Your task to perform on an android device: turn notification dots on Image 0: 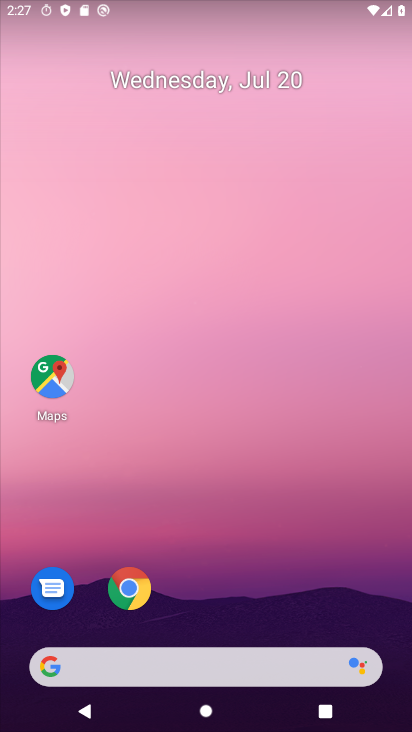
Step 0: drag from (202, 209) to (222, 128)
Your task to perform on an android device: turn notification dots on Image 1: 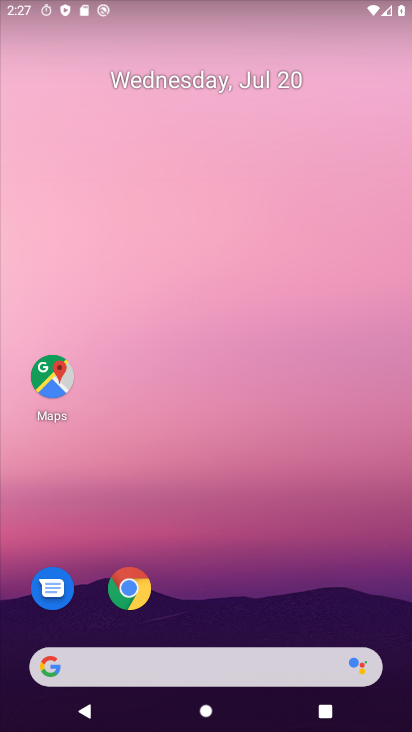
Step 1: drag from (211, 603) to (289, 30)
Your task to perform on an android device: turn notification dots on Image 2: 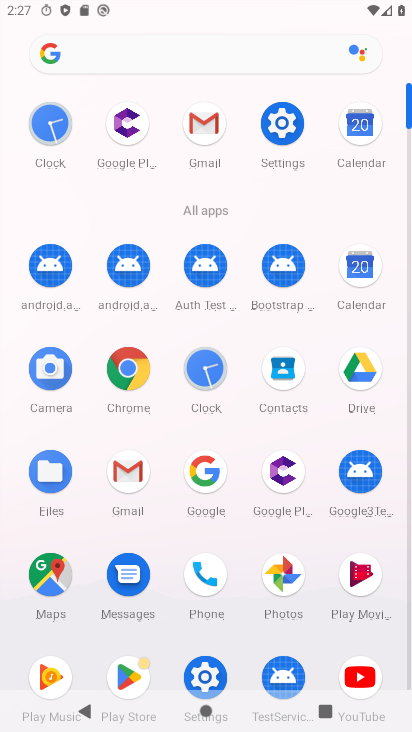
Step 2: click (258, 108)
Your task to perform on an android device: turn notification dots on Image 3: 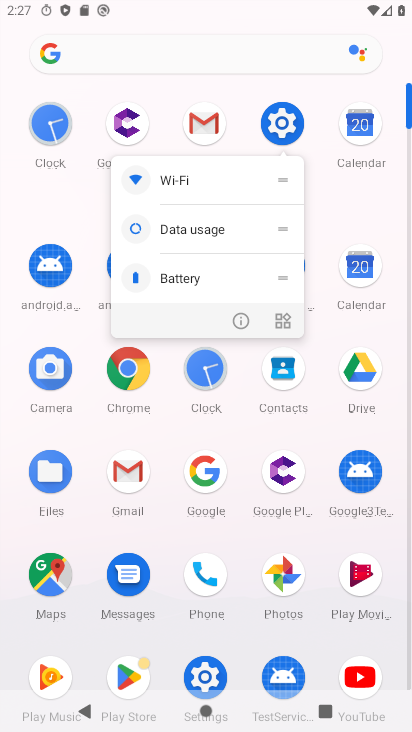
Step 3: click (240, 315)
Your task to perform on an android device: turn notification dots on Image 4: 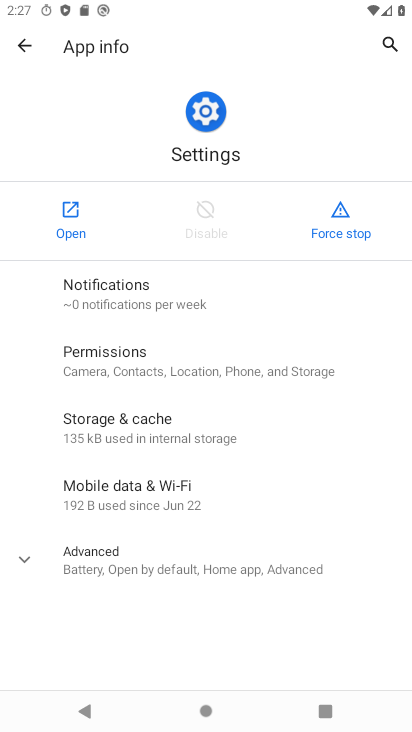
Step 4: click (62, 227)
Your task to perform on an android device: turn notification dots on Image 5: 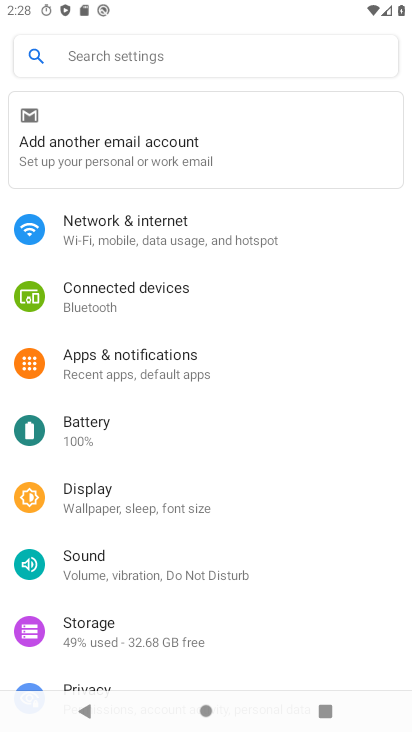
Step 5: click (154, 361)
Your task to perform on an android device: turn notification dots on Image 6: 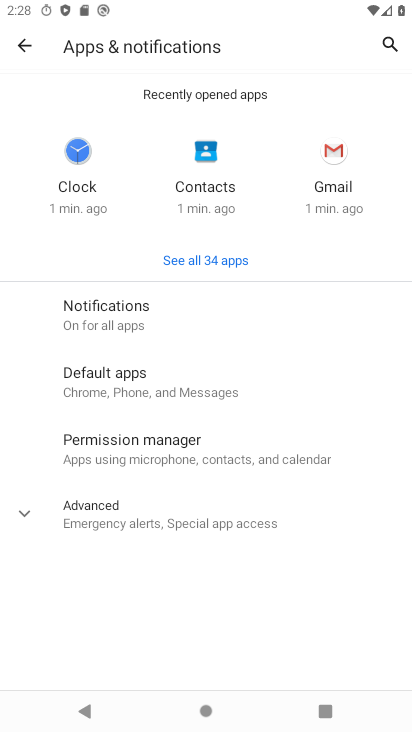
Step 6: click (179, 300)
Your task to perform on an android device: turn notification dots on Image 7: 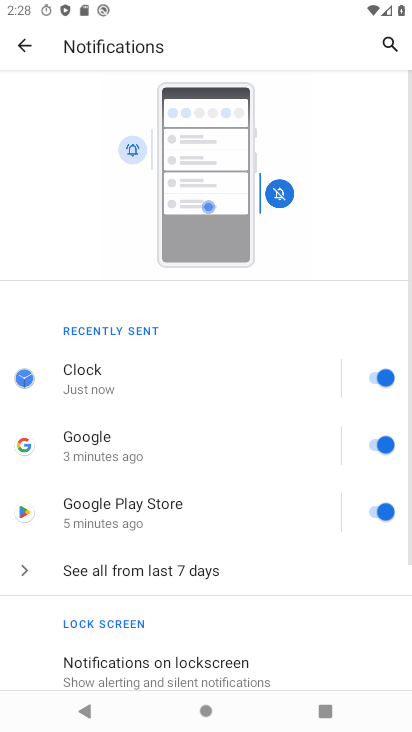
Step 7: drag from (231, 646) to (228, 154)
Your task to perform on an android device: turn notification dots on Image 8: 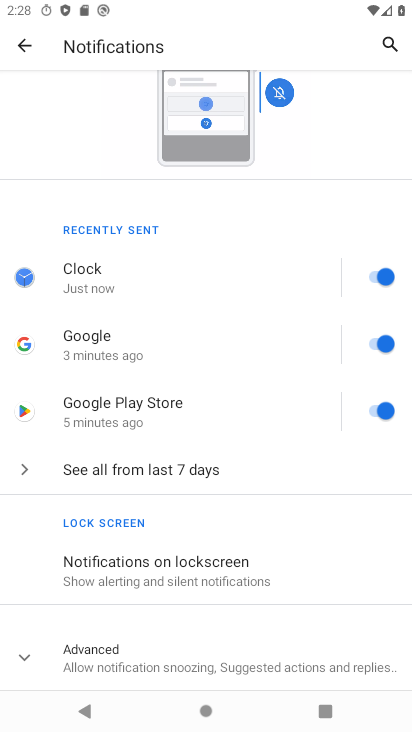
Step 8: click (160, 656)
Your task to perform on an android device: turn notification dots on Image 9: 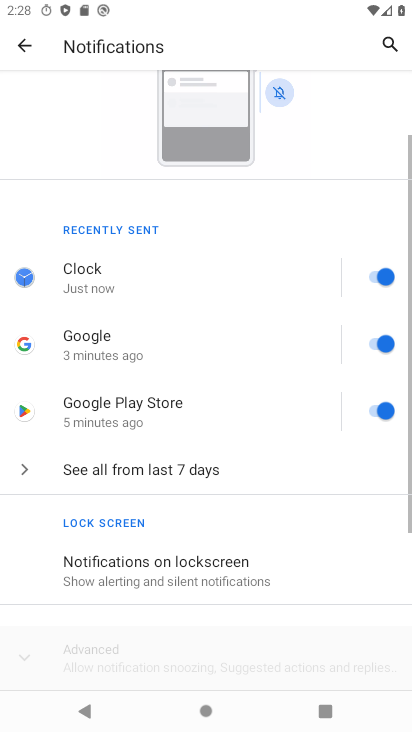
Step 9: task complete